Your task to perform on an android device: Go to accessibility settings Image 0: 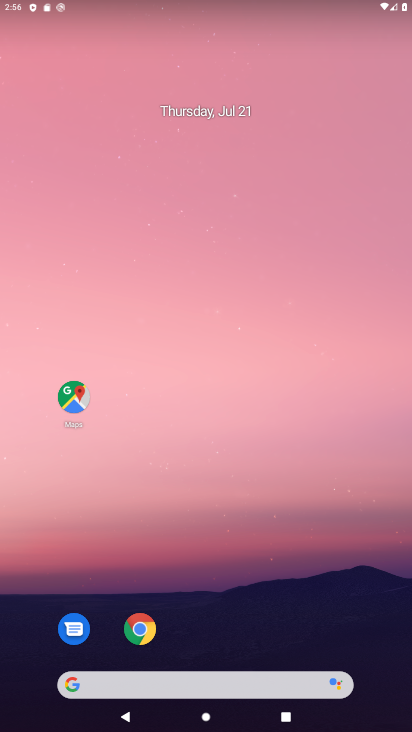
Step 0: drag from (228, 598) to (225, 208)
Your task to perform on an android device: Go to accessibility settings Image 1: 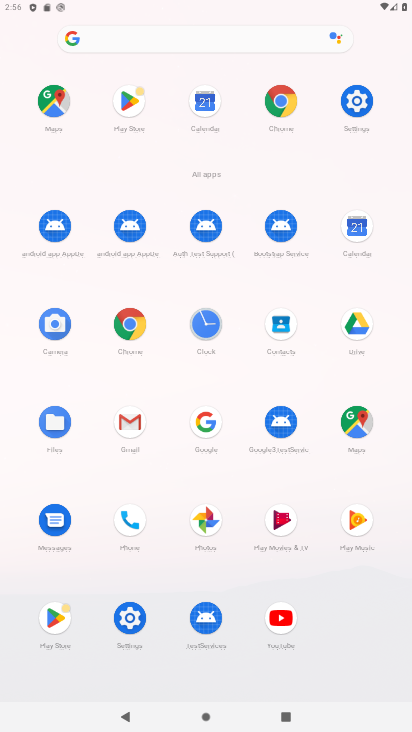
Step 1: click (123, 633)
Your task to perform on an android device: Go to accessibility settings Image 2: 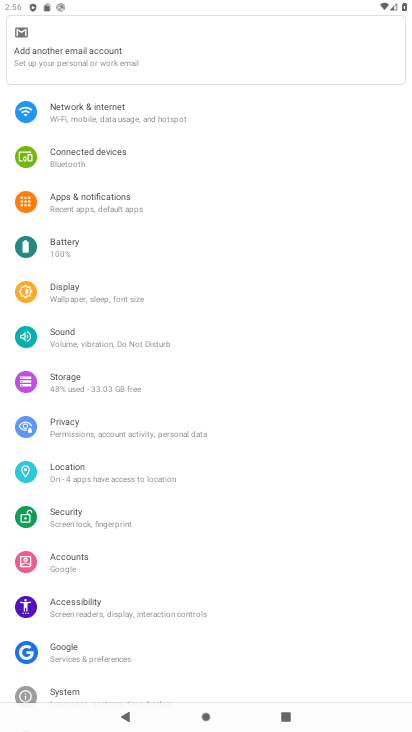
Step 2: click (105, 612)
Your task to perform on an android device: Go to accessibility settings Image 3: 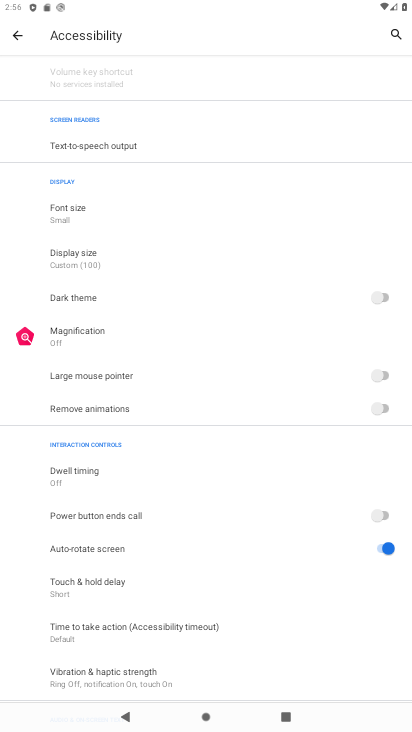
Step 3: task complete